Your task to perform on an android device: Open the calendar and show me this week's events Image 0: 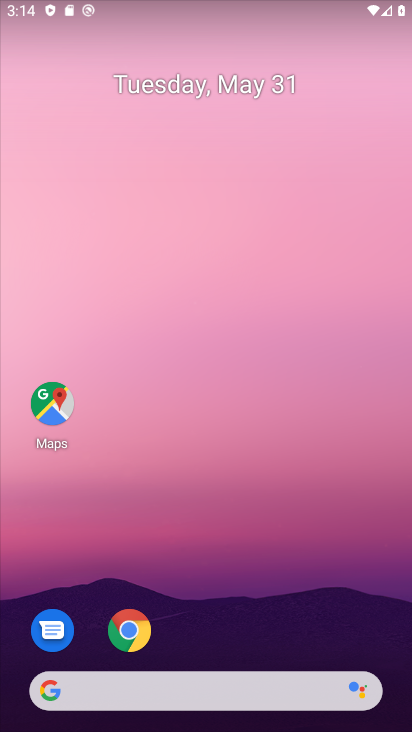
Step 0: drag from (253, 695) to (298, 99)
Your task to perform on an android device: Open the calendar and show me this week's events Image 1: 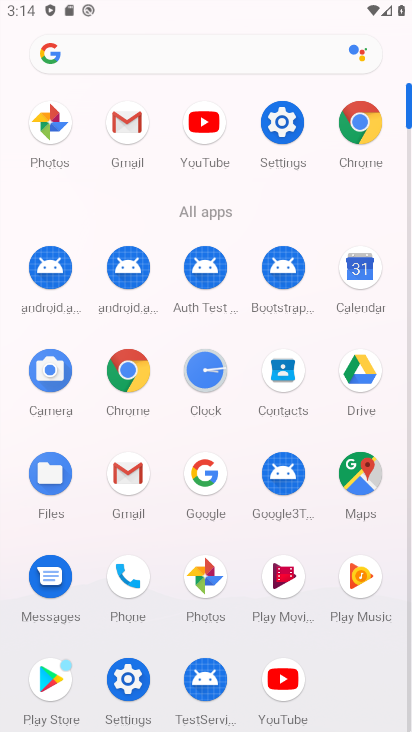
Step 1: click (367, 280)
Your task to perform on an android device: Open the calendar and show me this week's events Image 2: 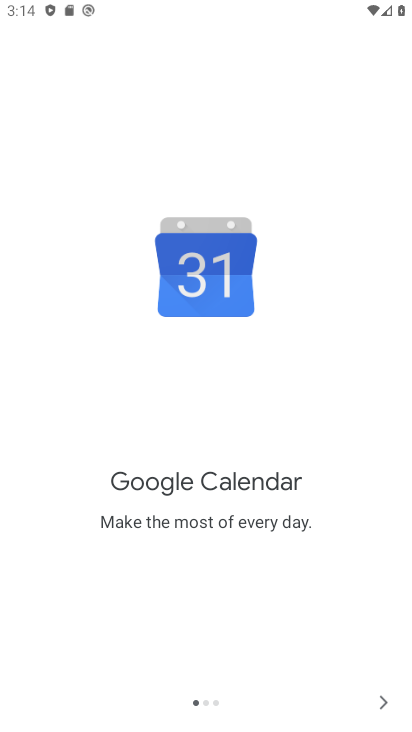
Step 2: click (384, 691)
Your task to perform on an android device: Open the calendar and show me this week's events Image 3: 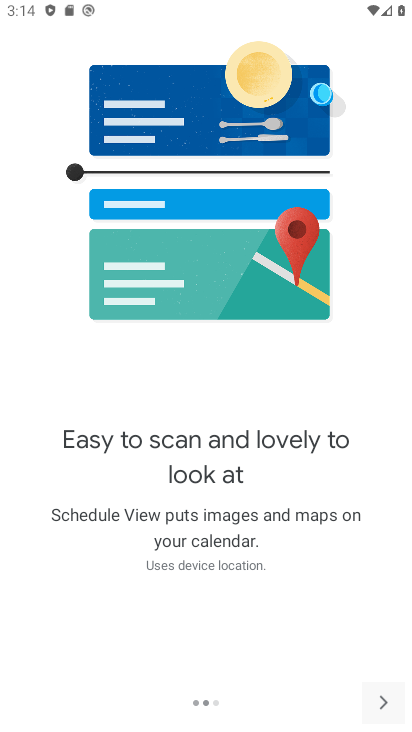
Step 3: click (391, 701)
Your task to perform on an android device: Open the calendar and show me this week's events Image 4: 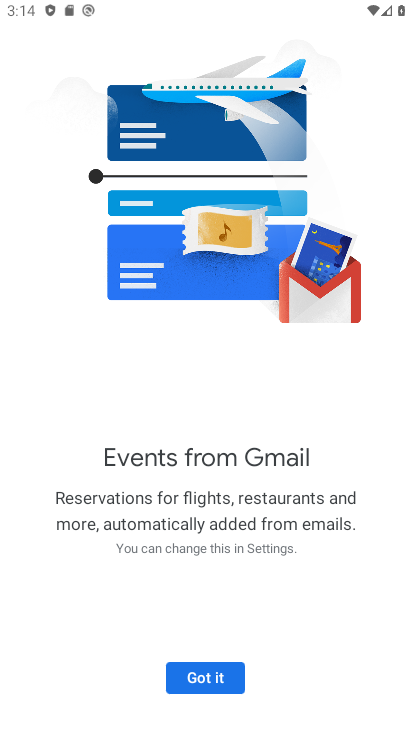
Step 4: click (386, 705)
Your task to perform on an android device: Open the calendar and show me this week's events Image 5: 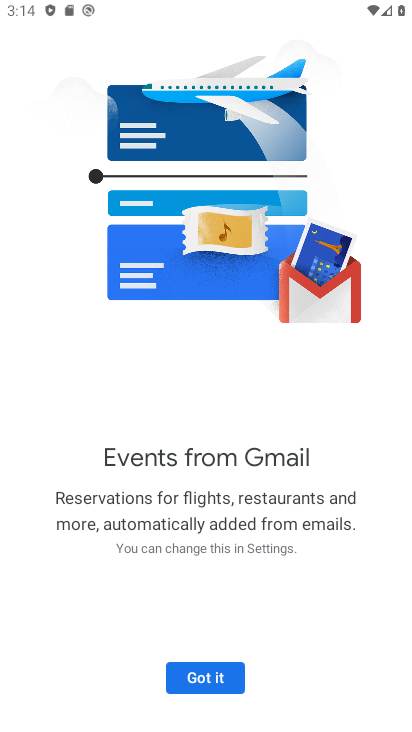
Step 5: click (208, 677)
Your task to perform on an android device: Open the calendar and show me this week's events Image 6: 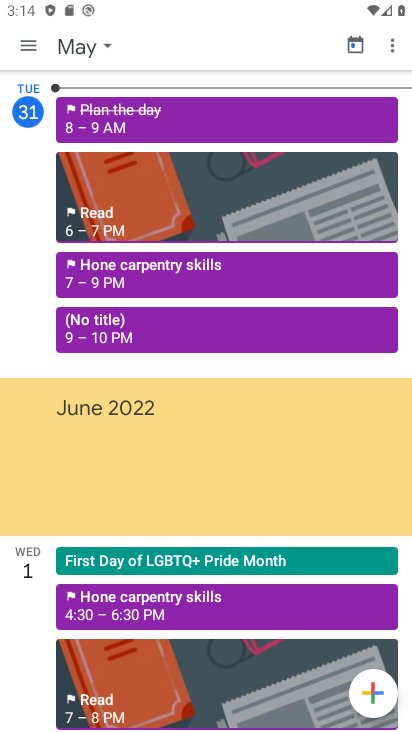
Step 6: click (106, 45)
Your task to perform on an android device: Open the calendar and show me this week's events Image 7: 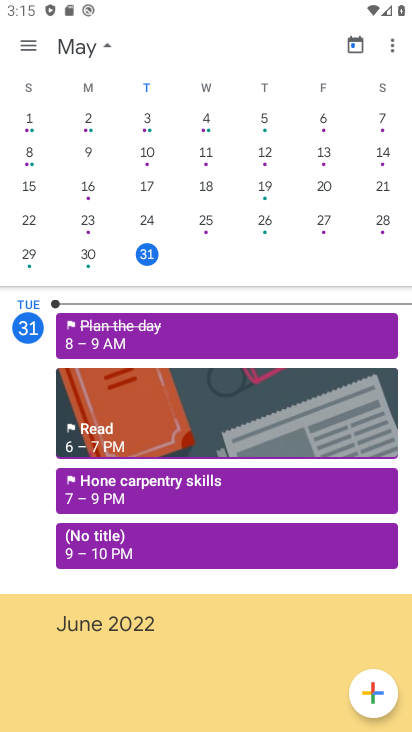
Step 7: drag from (343, 214) to (23, 187)
Your task to perform on an android device: Open the calendar and show me this week's events Image 8: 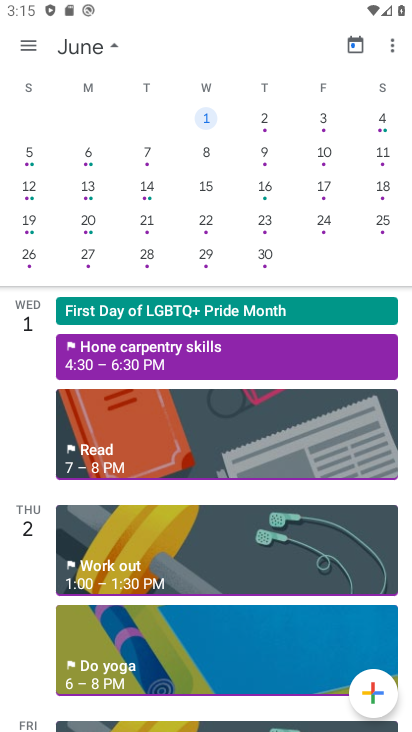
Step 8: click (318, 121)
Your task to perform on an android device: Open the calendar and show me this week's events Image 9: 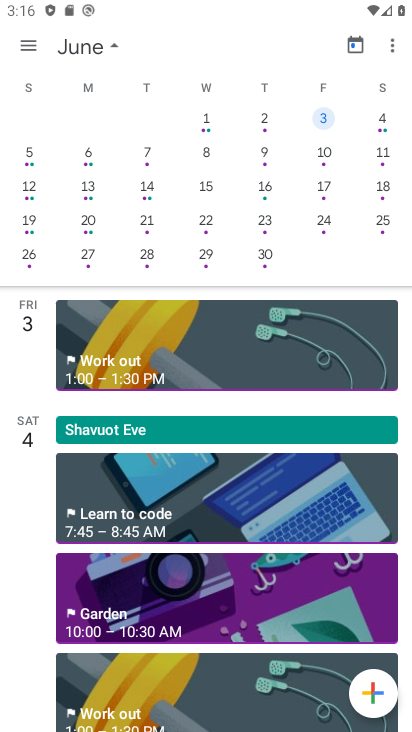
Step 9: click (115, 40)
Your task to perform on an android device: Open the calendar and show me this week's events Image 10: 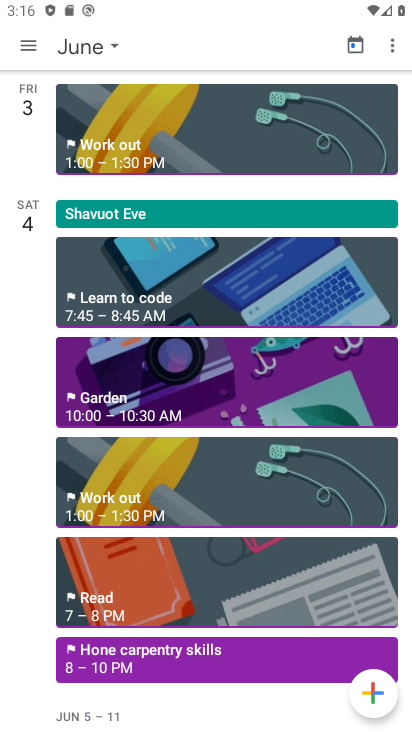
Step 10: click (116, 41)
Your task to perform on an android device: Open the calendar and show me this week's events Image 11: 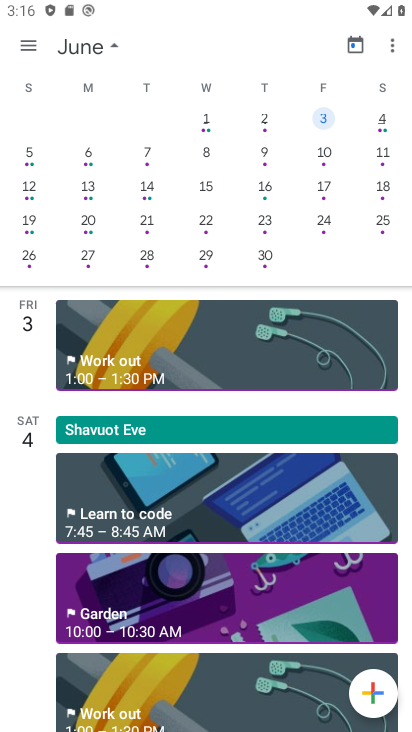
Step 11: click (23, 44)
Your task to perform on an android device: Open the calendar and show me this week's events Image 12: 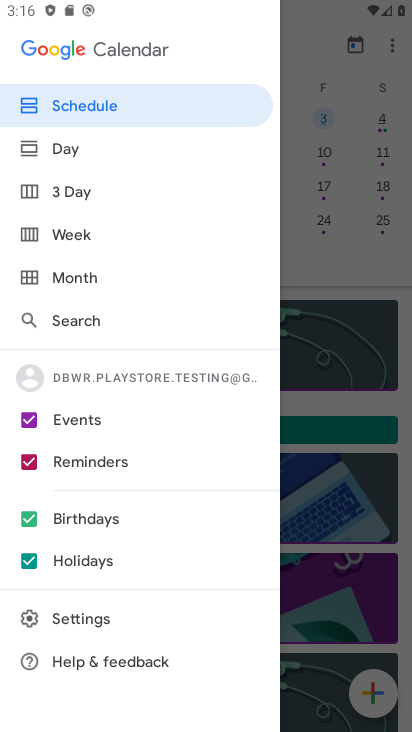
Step 12: click (84, 234)
Your task to perform on an android device: Open the calendar and show me this week's events Image 13: 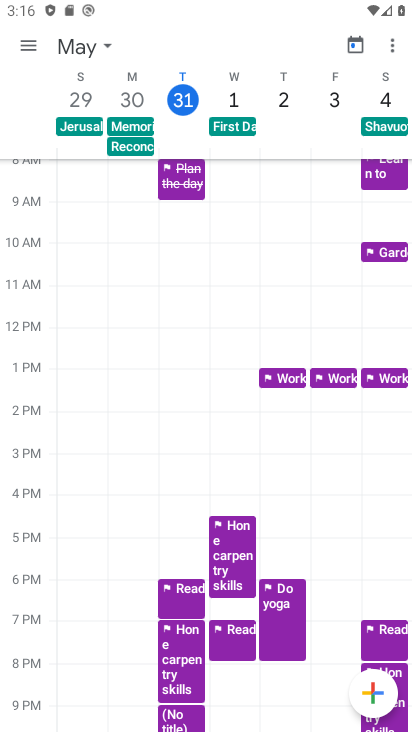
Step 13: task complete